Your task to perform on an android device: Open the calendar and show me this week's events Image 0: 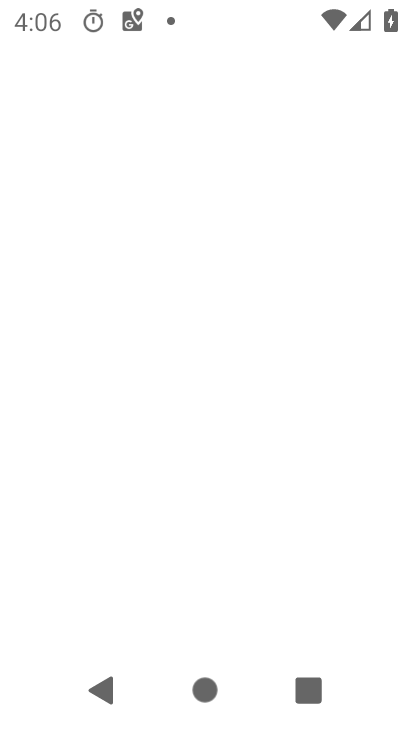
Step 0: drag from (216, 534) to (234, 131)
Your task to perform on an android device: Open the calendar and show me this week's events Image 1: 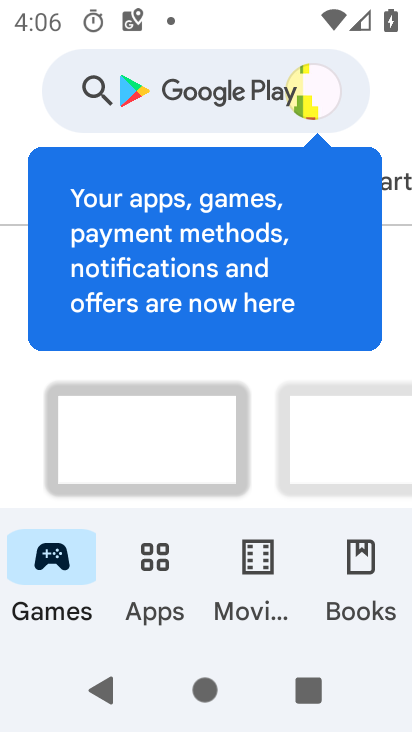
Step 1: press home button
Your task to perform on an android device: Open the calendar and show me this week's events Image 2: 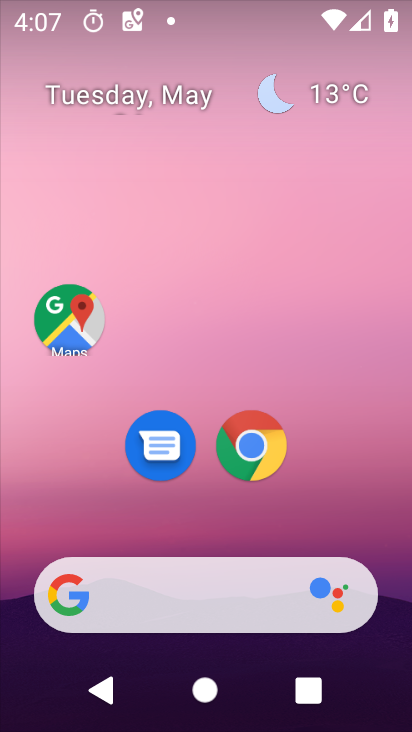
Step 2: drag from (213, 535) to (229, 151)
Your task to perform on an android device: Open the calendar and show me this week's events Image 3: 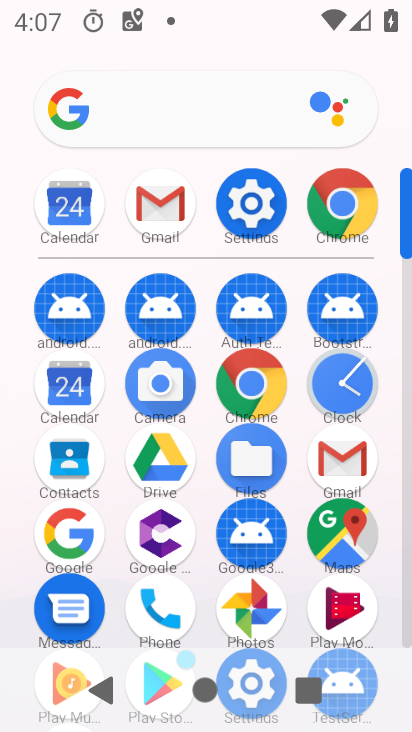
Step 3: click (66, 379)
Your task to perform on an android device: Open the calendar and show me this week's events Image 4: 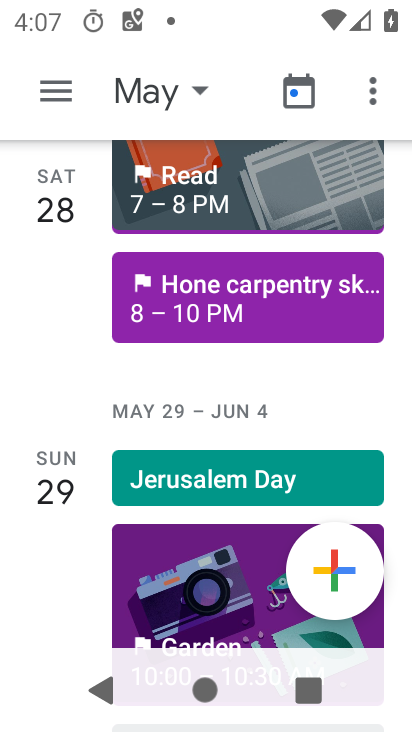
Step 4: click (196, 87)
Your task to perform on an android device: Open the calendar and show me this week's events Image 5: 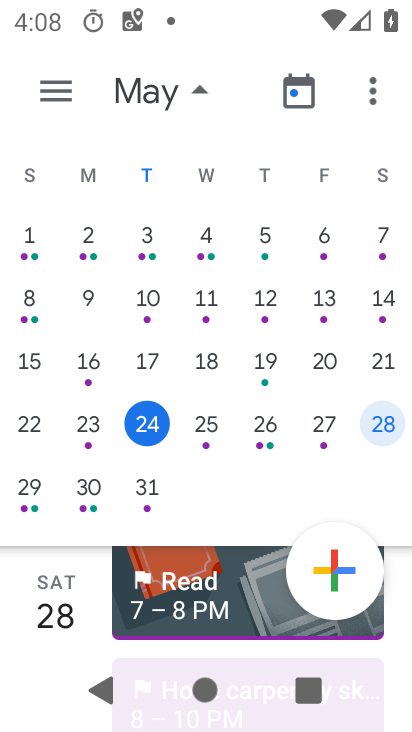
Step 5: click (54, 85)
Your task to perform on an android device: Open the calendar and show me this week's events Image 6: 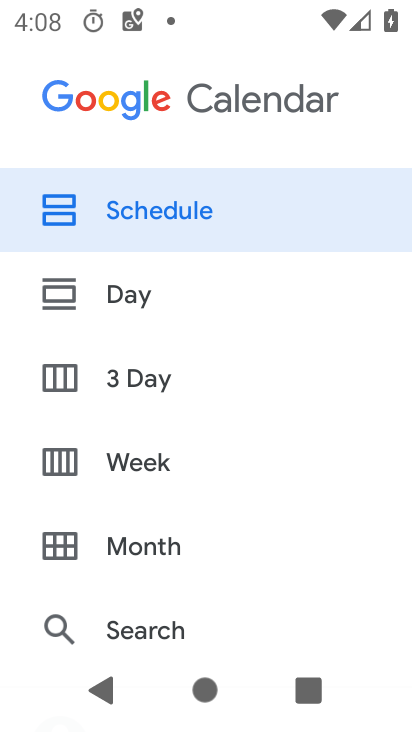
Step 6: click (95, 458)
Your task to perform on an android device: Open the calendar and show me this week's events Image 7: 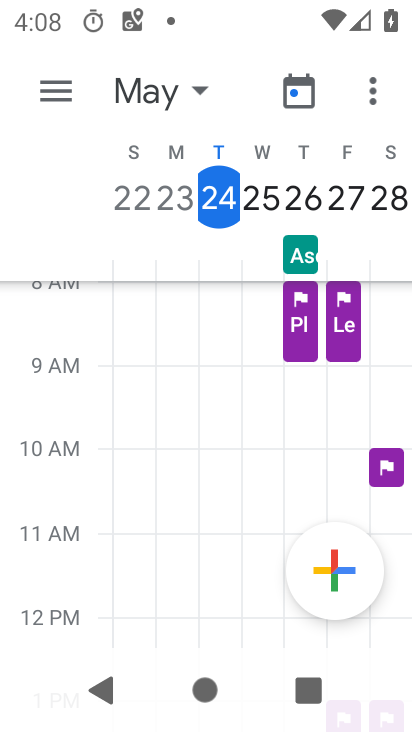
Step 7: click (219, 191)
Your task to perform on an android device: Open the calendar and show me this week's events Image 8: 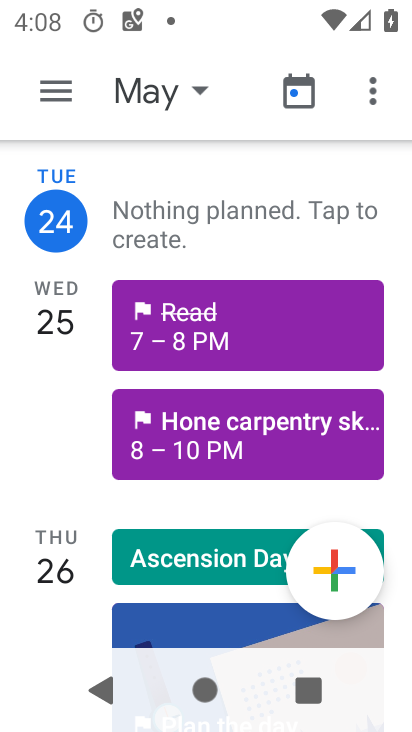
Step 8: task complete